Your task to perform on an android device: install app "Grab" Image 0: 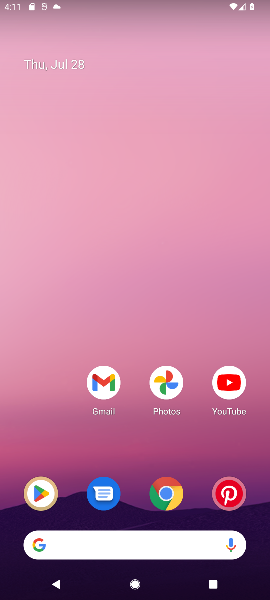
Step 0: drag from (132, 441) to (196, 93)
Your task to perform on an android device: install app "Grab" Image 1: 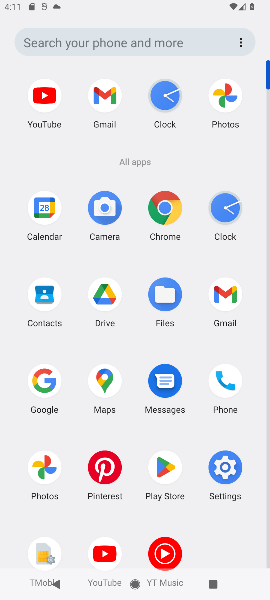
Step 1: click (164, 471)
Your task to perform on an android device: install app "Grab" Image 2: 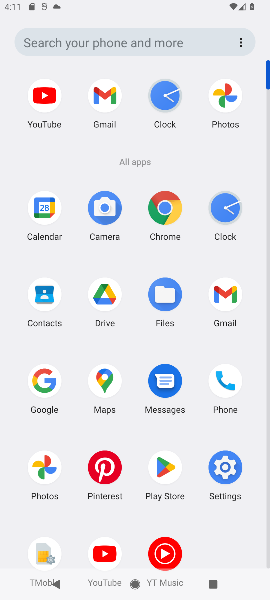
Step 2: click (164, 471)
Your task to perform on an android device: install app "Grab" Image 3: 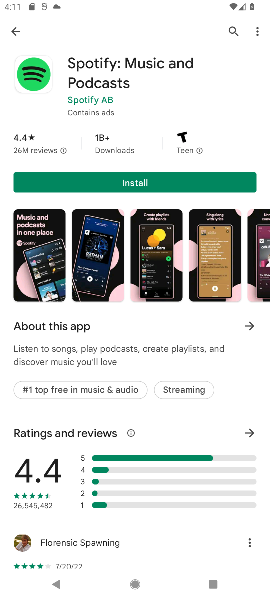
Step 3: click (232, 28)
Your task to perform on an android device: install app "Grab" Image 4: 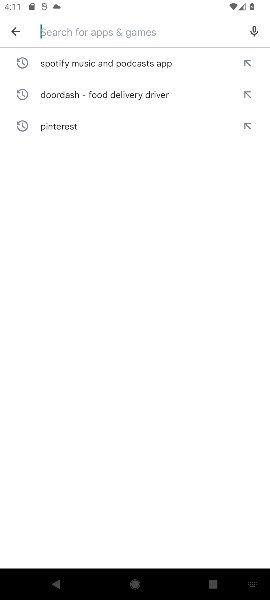
Step 4: type "Grab"
Your task to perform on an android device: install app "Grab" Image 5: 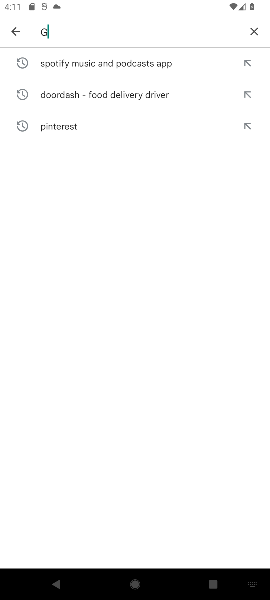
Step 5: type ""
Your task to perform on an android device: install app "Grab" Image 6: 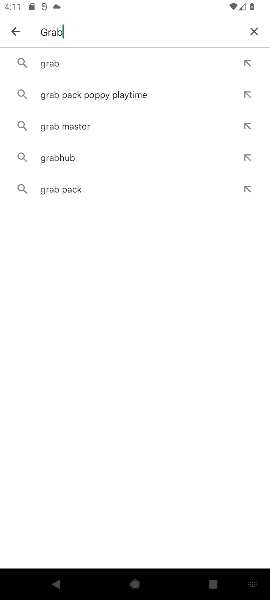
Step 6: click (88, 61)
Your task to perform on an android device: install app "Grab" Image 7: 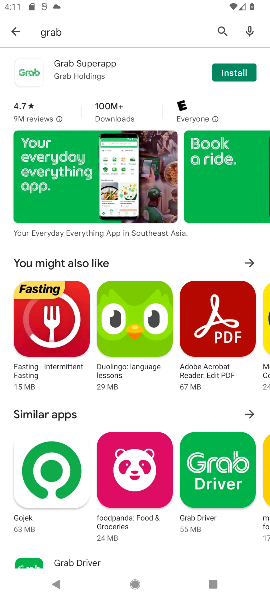
Step 7: click (85, 68)
Your task to perform on an android device: install app "Grab" Image 8: 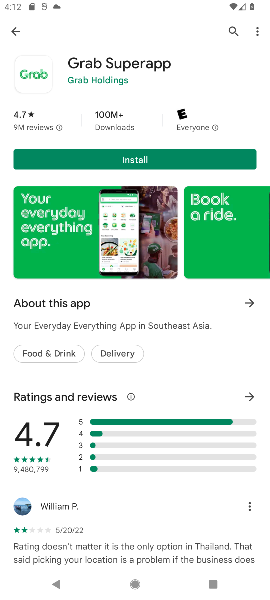
Step 8: click (77, 155)
Your task to perform on an android device: install app "Grab" Image 9: 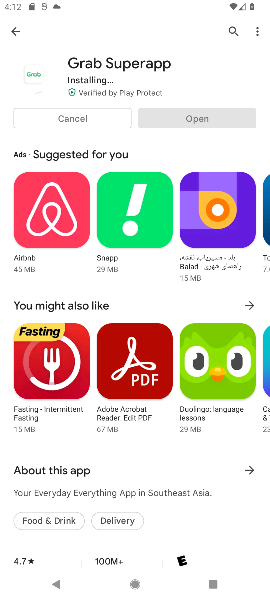
Step 9: task complete